Your task to perform on an android device: Open Android settings Image 0: 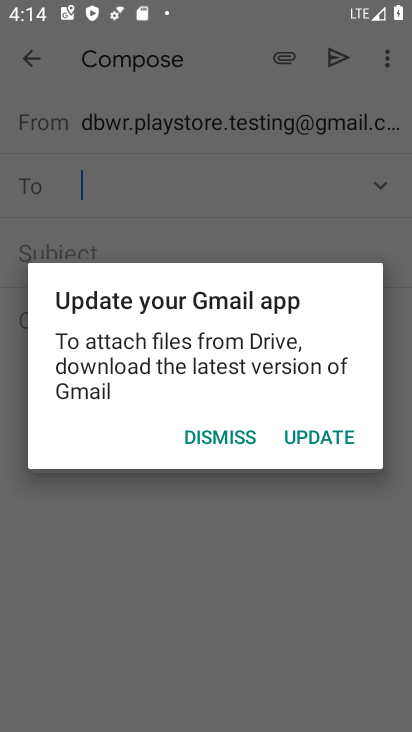
Step 0: press back button
Your task to perform on an android device: Open Android settings Image 1: 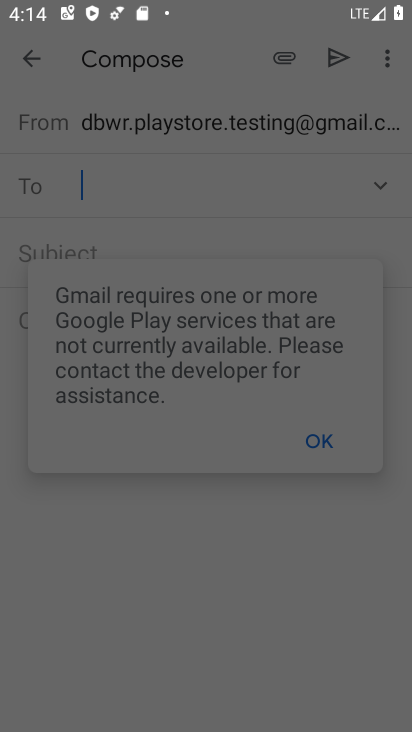
Step 1: press home button
Your task to perform on an android device: Open Android settings Image 2: 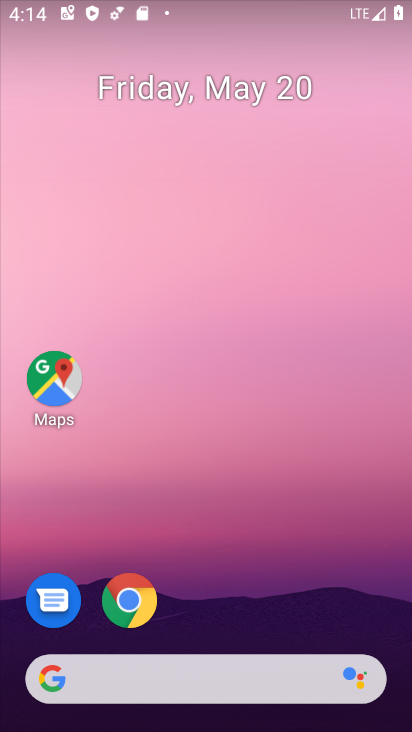
Step 2: drag from (188, 589) to (167, 50)
Your task to perform on an android device: Open Android settings Image 3: 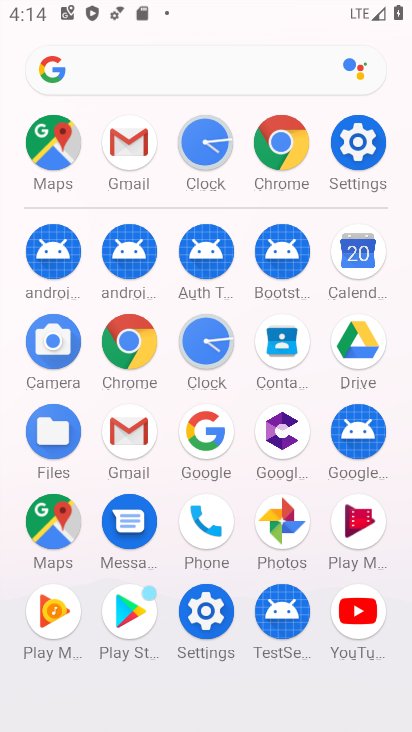
Step 3: click (209, 609)
Your task to perform on an android device: Open Android settings Image 4: 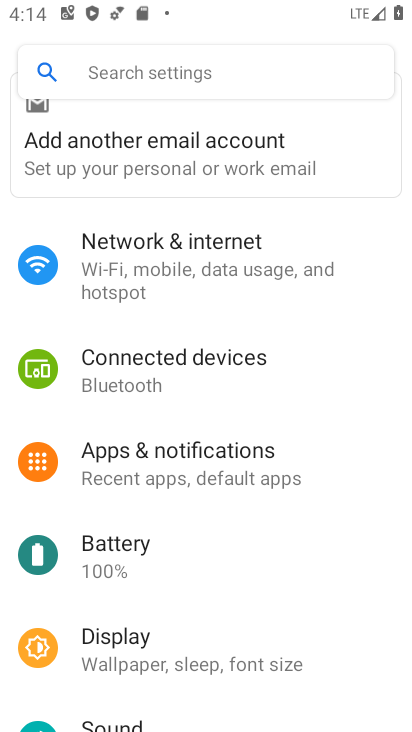
Step 4: task complete